Your task to perform on an android device: When is my next meeting? Image 0: 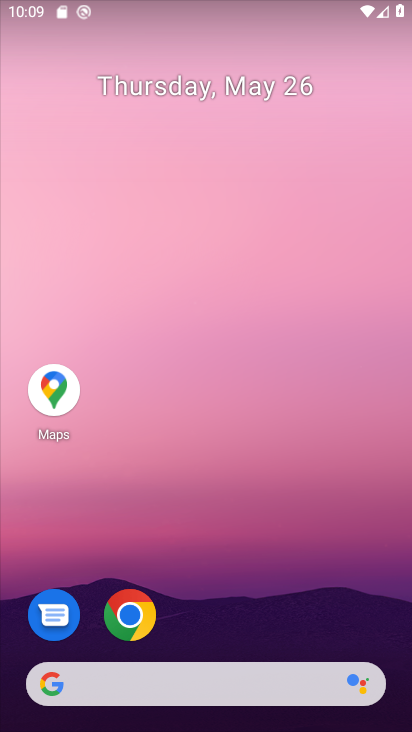
Step 0: drag from (285, 630) to (274, 53)
Your task to perform on an android device: When is my next meeting? Image 1: 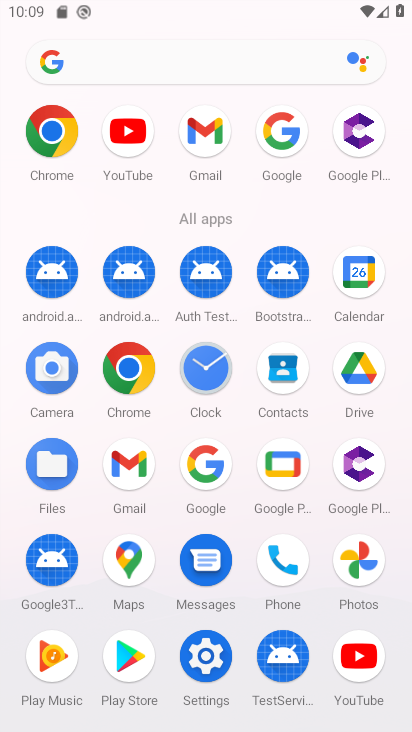
Step 1: click (354, 284)
Your task to perform on an android device: When is my next meeting? Image 2: 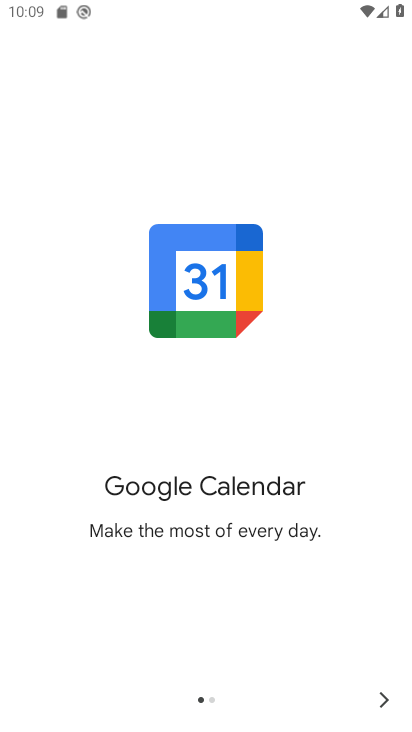
Step 2: click (392, 695)
Your task to perform on an android device: When is my next meeting? Image 3: 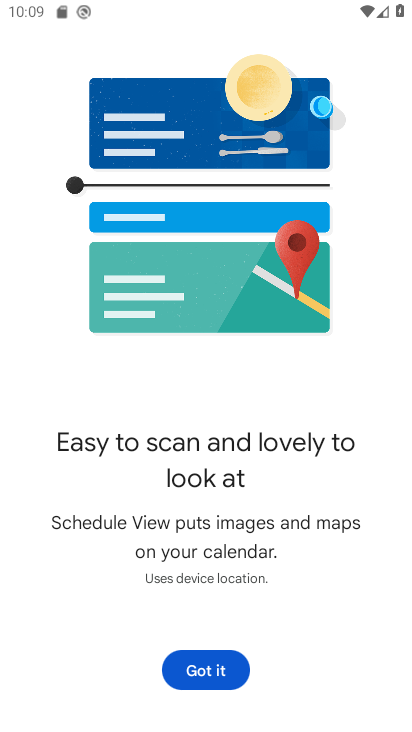
Step 3: click (215, 663)
Your task to perform on an android device: When is my next meeting? Image 4: 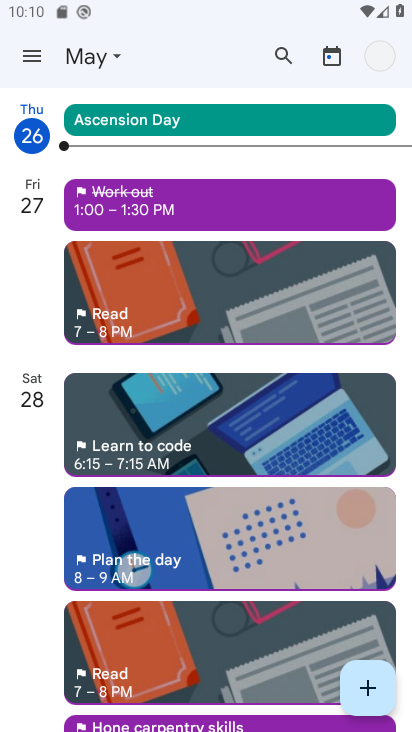
Step 4: drag from (212, 604) to (201, 310)
Your task to perform on an android device: When is my next meeting? Image 5: 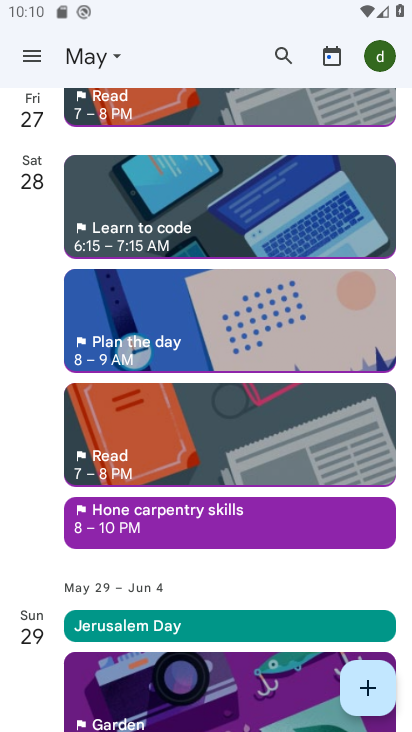
Step 5: drag from (221, 603) to (186, 312)
Your task to perform on an android device: When is my next meeting? Image 6: 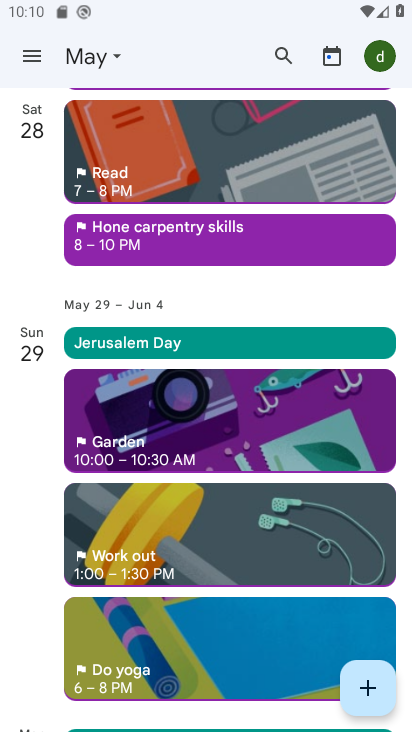
Step 6: drag from (201, 663) to (156, 267)
Your task to perform on an android device: When is my next meeting? Image 7: 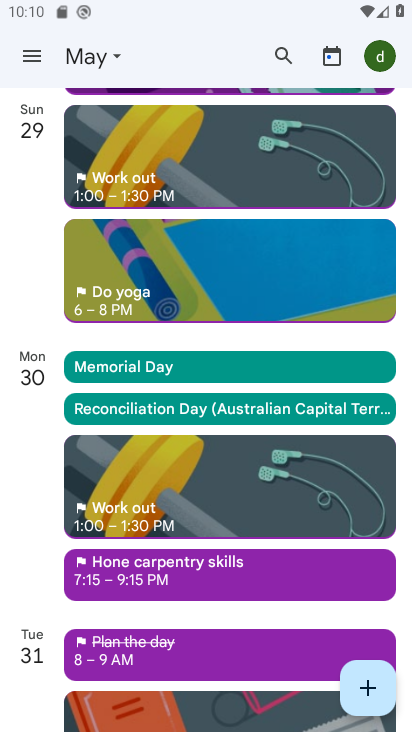
Step 7: drag from (161, 591) to (157, 125)
Your task to perform on an android device: When is my next meeting? Image 8: 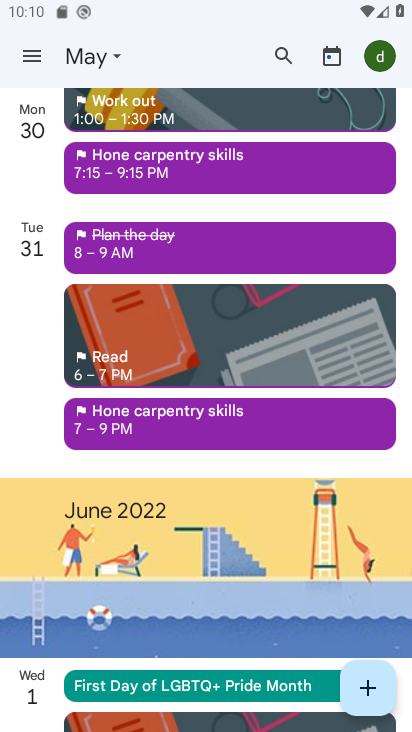
Step 8: drag from (207, 599) to (165, 26)
Your task to perform on an android device: When is my next meeting? Image 9: 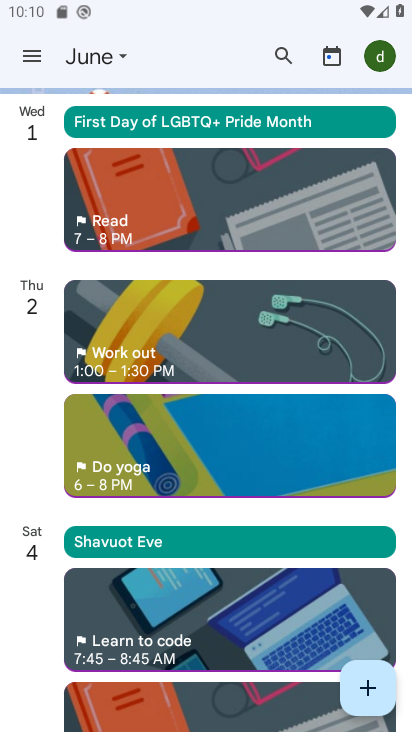
Step 9: drag from (191, 564) to (176, 189)
Your task to perform on an android device: When is my next meeting? Image 10: 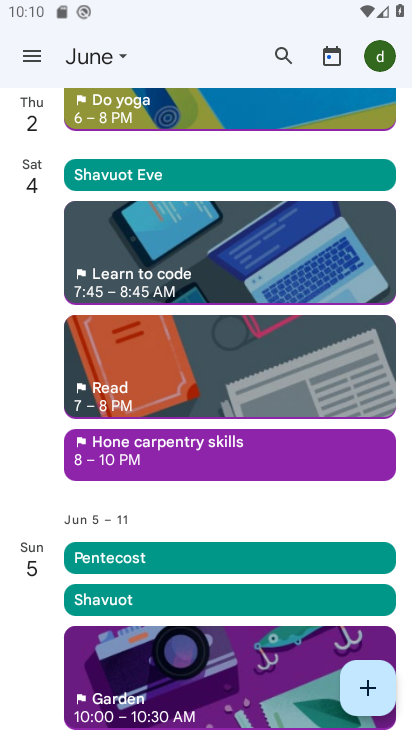
Step 10: drag from (198, 577) to (180, 155)
Your task to perform on an android device: When is my next meeting? Image 11: 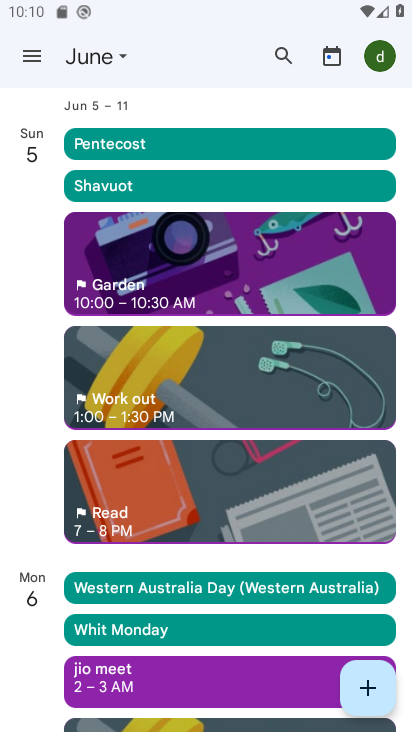
Step 11: click (165, 681)
Your task to perform on an android device: When is my next meeting? Image 12: 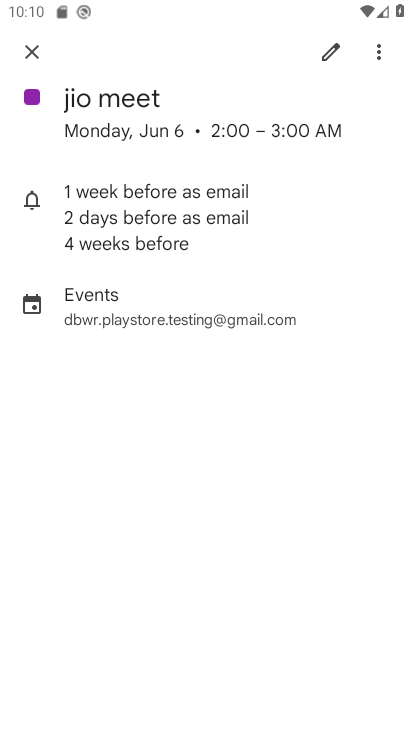
Step 12: task complete